Your task to perform on an android device: Open calendar and show me the first week of next month Image 0: 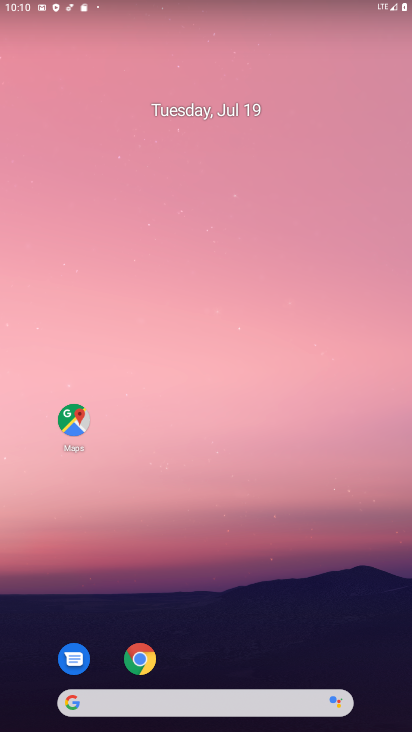
Step 0: drag from (245, 551) to (241, 170)
Your task to perform on an android device: Open calendar and show me the first week of next month Image 1: 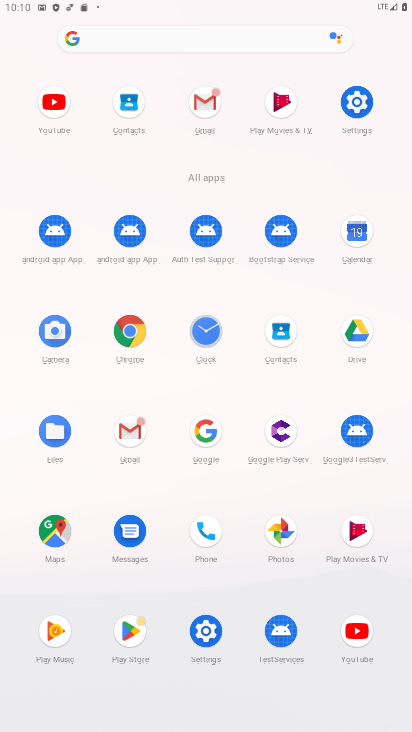
Step 1: click (364, 235)
Your task to perform on an android device: Open calendar and show me the first week of next month Image 2: 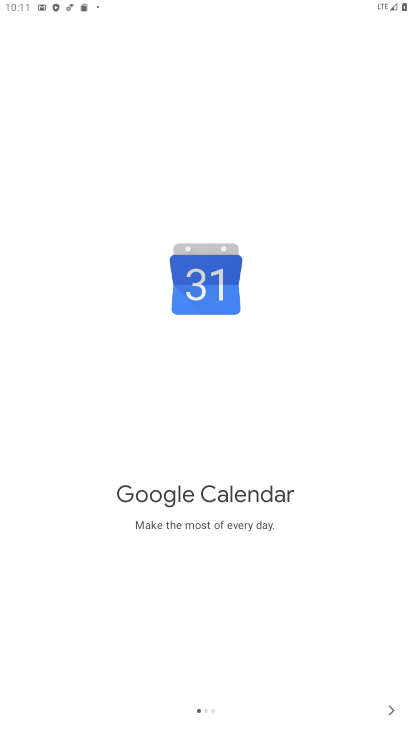
Step 2: click (386, 708)
Your task to perform on an android device: Open calendar and show me the first week of next month Image 3: 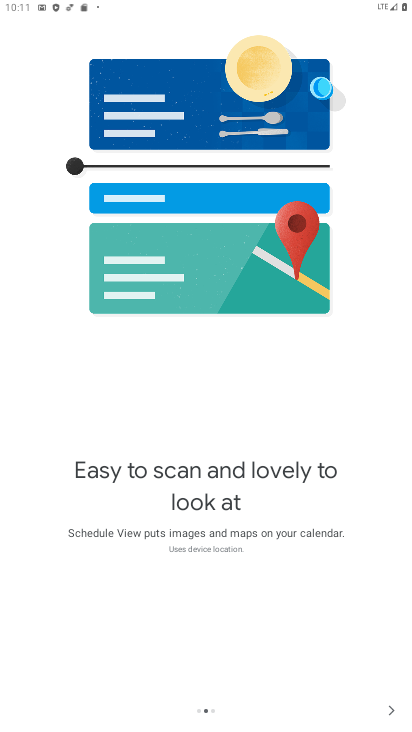
Step 3: click (387, 708)
Your task to perform on an android device: Open calendar and show me the first week of next month Image 4: 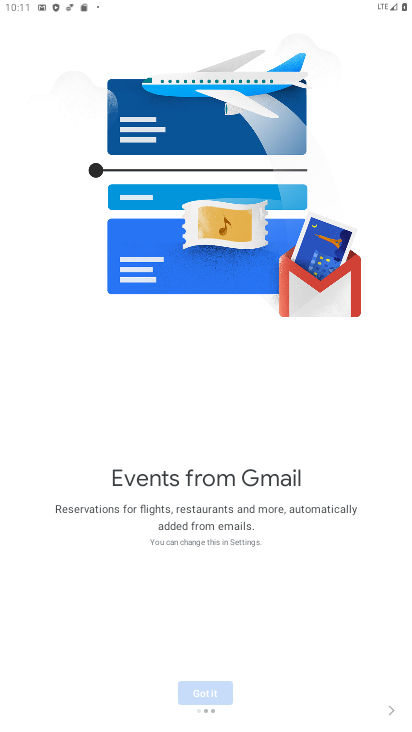
Step 4: click (387, 708)
Your task to perform on an android device: Open calendar and show me the first week of next month Image 5: 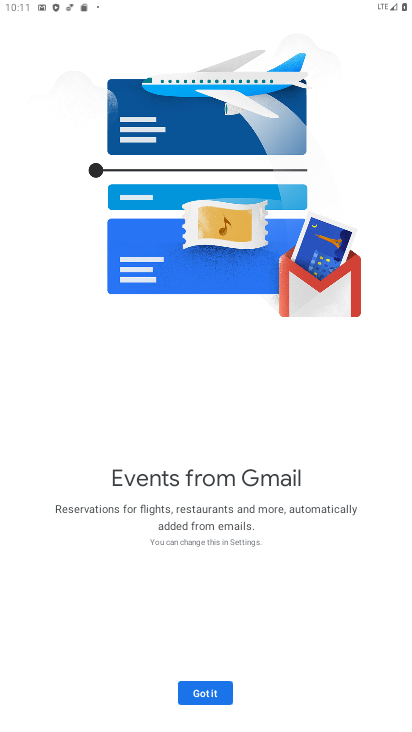
Step 5: click (203, 682)
Your task to perform on an android device: Open calendar and show me the first week of next month Image 6: 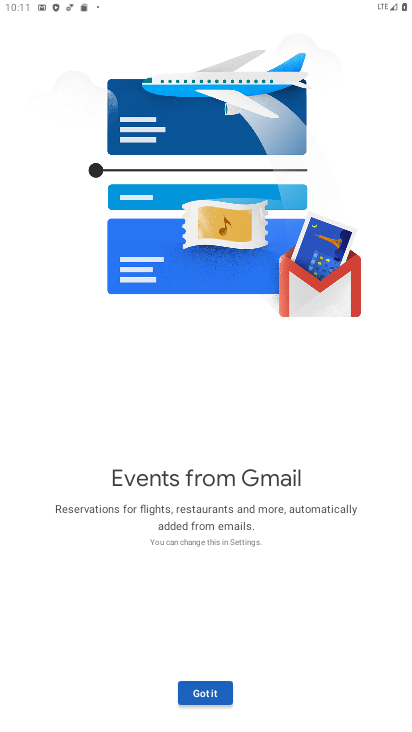
Step 6: click (202, 695)
Your task to perform on an android device: Open calendar and show me the first week of next month Image 7: 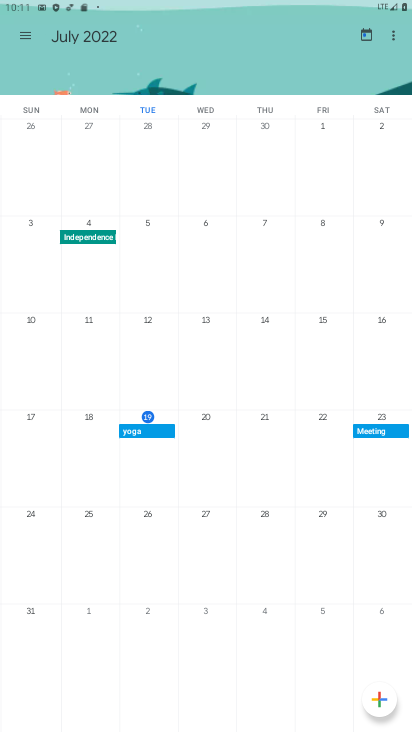
Step 7: task complete